Your task to perform on an android device: Open settings Image 0: 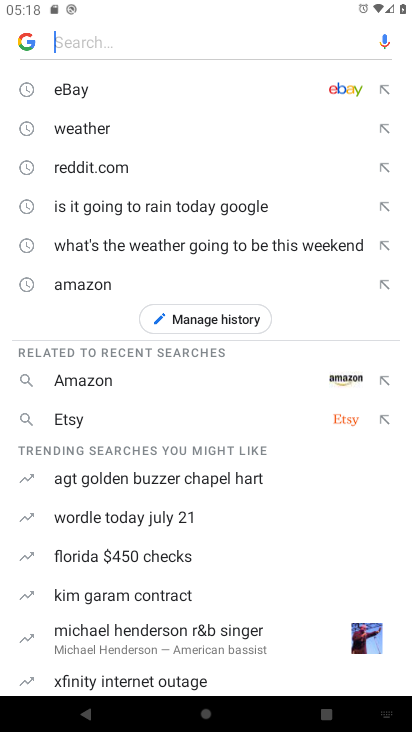
Step 0: press home button
Your task to perform on an android device: Open settings Image 1: 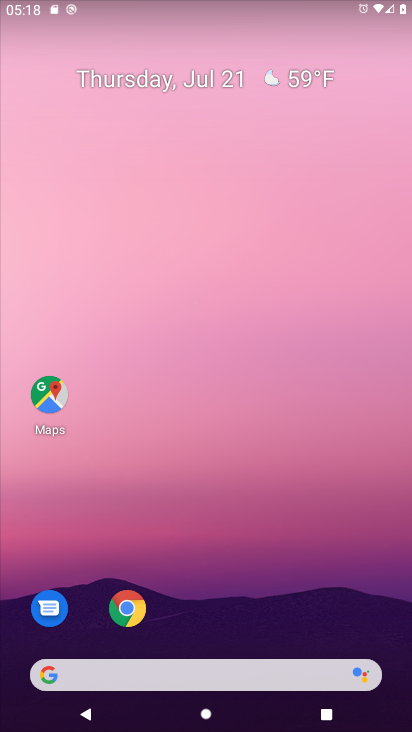
Step 1: drag from (267, 667) to (383, 554)
Your task to perform on an android device: Open settings Image 2: 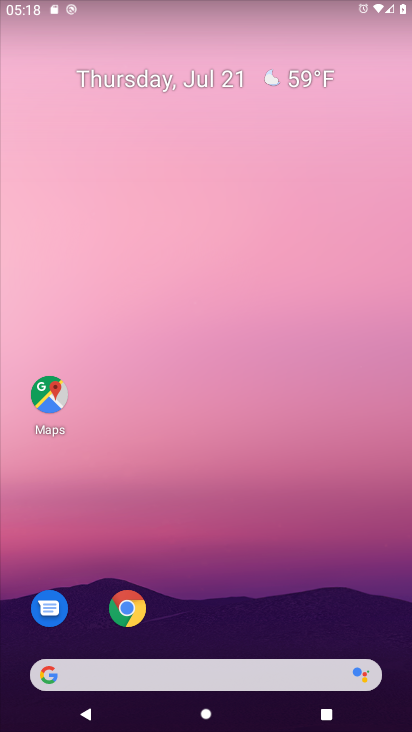
Step 2: drag from (286, 643) to (412, 246)
Your task to perform on an android device: Open settings Image 3: 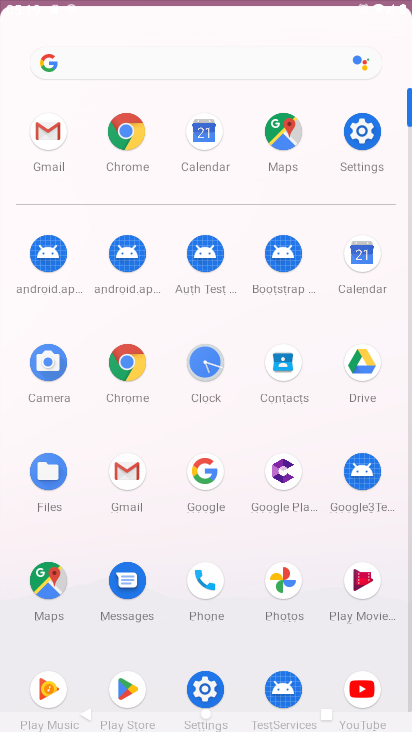
Step 3: click (367, 124)
Your task to perform on an android device: Open settings Image 4: 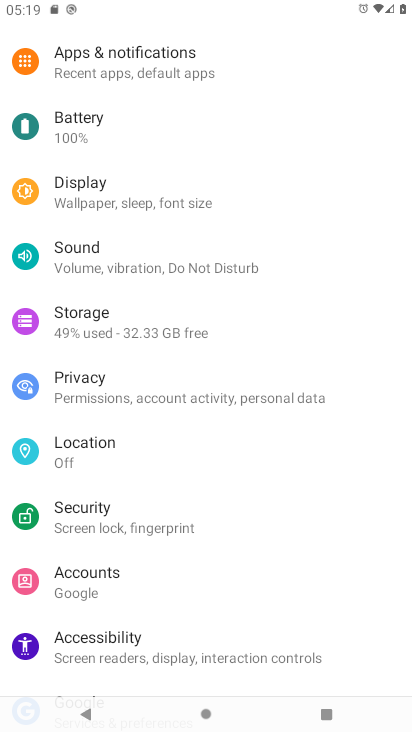
Step 4: task complete